Your task to perform on an android device: change the clock display to analog Image 0: 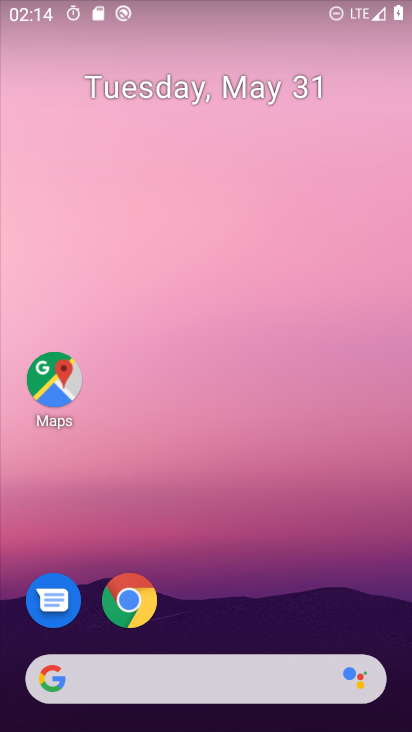
Step 0: drag from (232, 685) to (231, 373)
Your task to perform on an android device: change the clock display to analog Image 1: 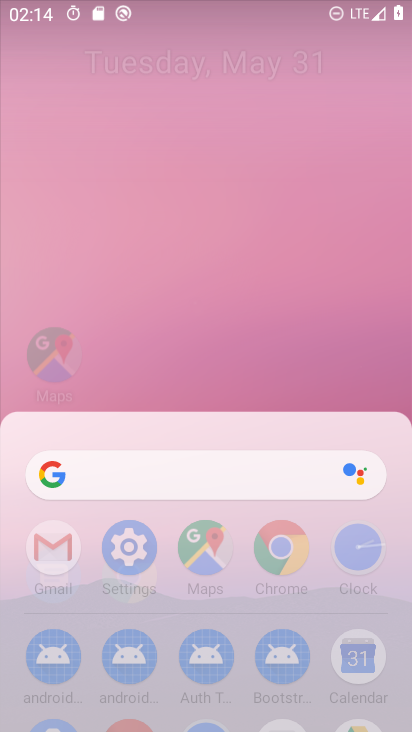
Step 1: click (226, 182)
Your task to perform on an android device: change the clock display to analog Image 2: 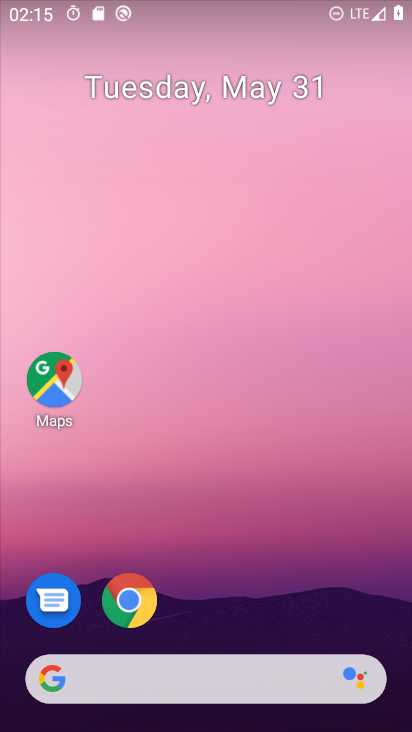
Step 2: drag from (217, 728) to (217, 512)
Your task to perform on an android device: change the clock display to analog Image 3: 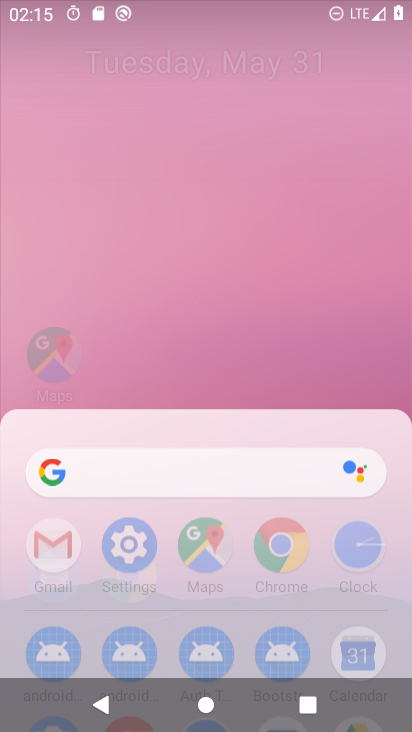
Step 3: drag from (225, 282) to (226, 8)
Your task to perform on an android device: change the clock display to analog Image 4: 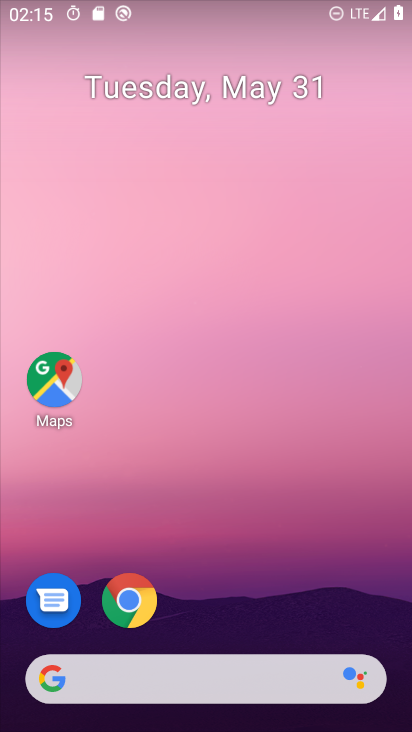
Step 4: drag from (234, 727) to (230, 84)
Your task to perform on an android device: change the clock display to analog Image 5: 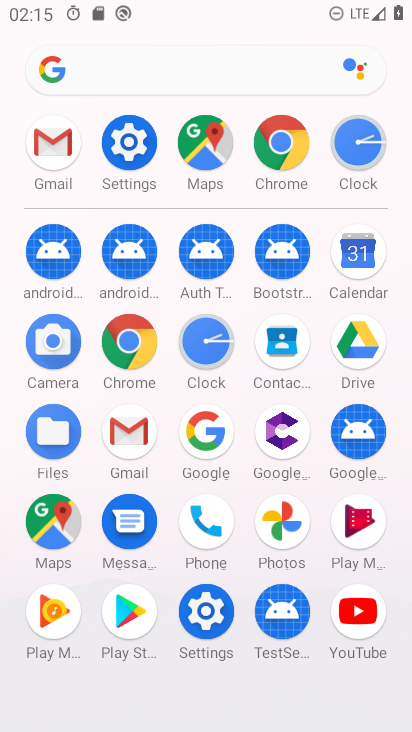
Step 5: click (200, 340)
Your task to perform on an android device: change the clock display to analog Image 6: 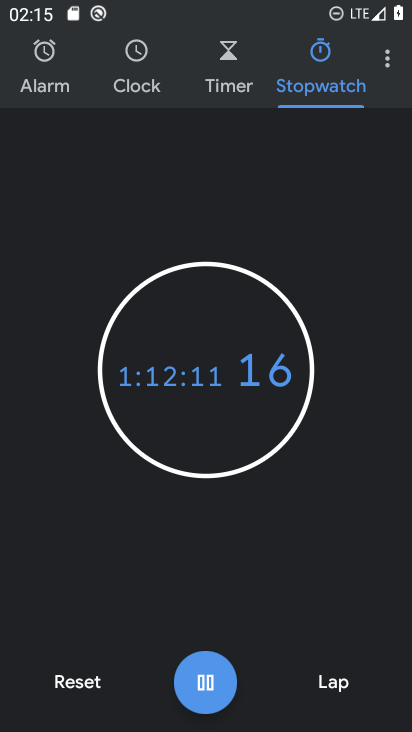
Step 6: click (386, 66)
Your task to perform on an android device: change the clock display to analog Image 7: 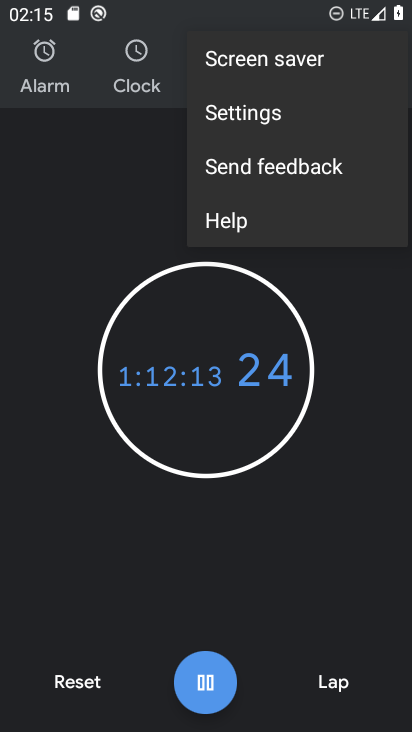
Step 7: click (253, 112)
Your task to perform on an android device: change the clock display to analog Image 8: 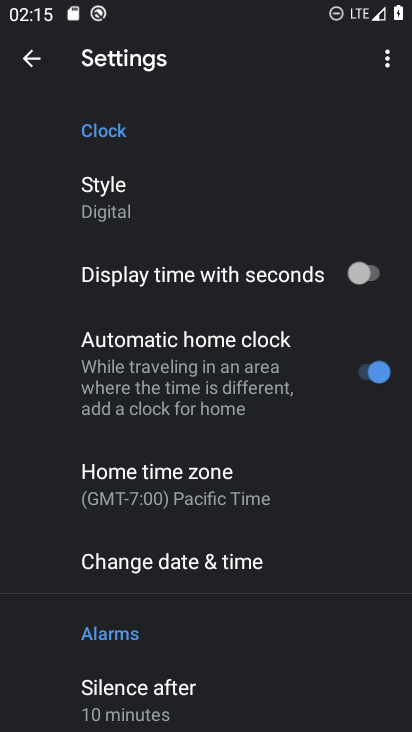
Step 8: click (95, 196)
Your task to perform on an android device: change the clock display to analog Image 9: 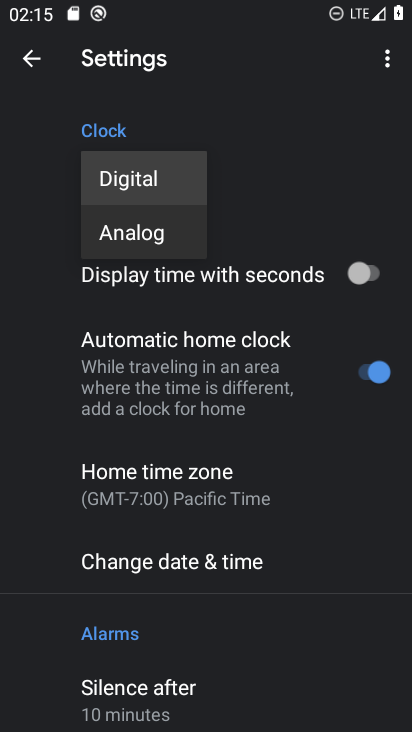
Step 9: click (120, 232)
Your task to perform on an android device: change the clock display to analog Image 10: 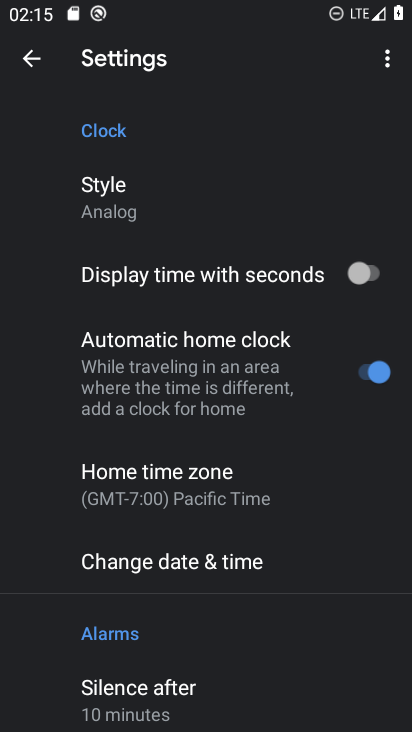
Step 10: task complete